Your task to perform on an android device: turn on sleep mode Image 0: 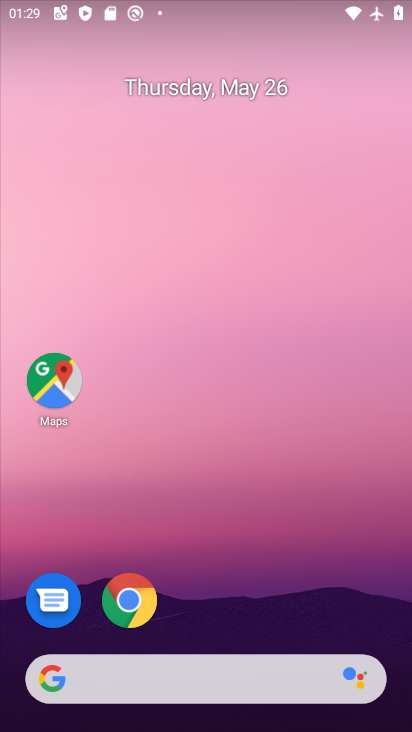
Step 0: drag from (234, 563) to (285, 110)
Your task to perform on an android device: turn on sleep mode Image 1: 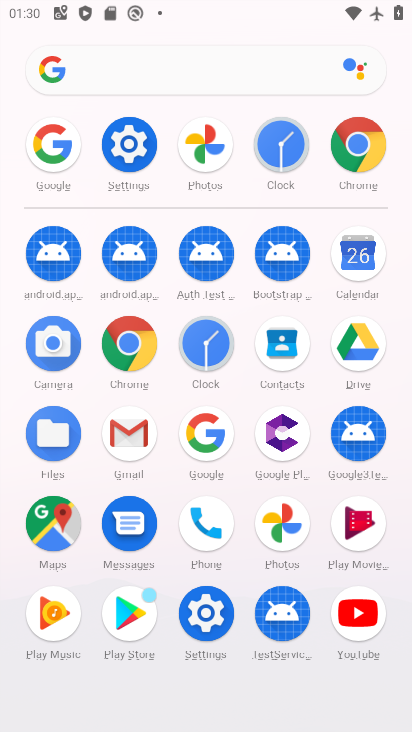
Step 1: click (208, 600)
Your task to perform on an android device: turn on sleep mode Image 2: 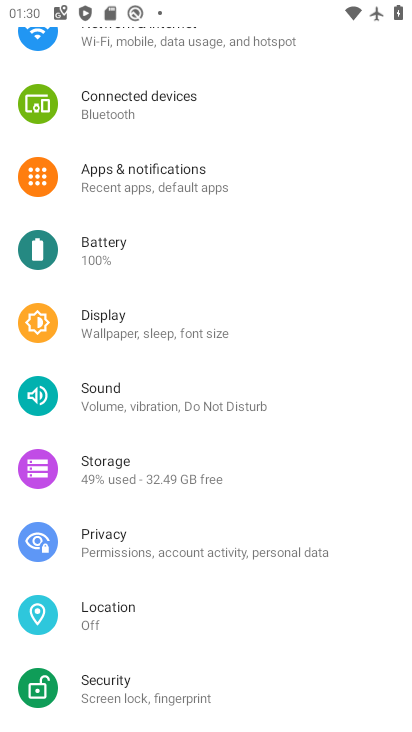
Step 2: click (166, 331)
Your task to perform on an android device: turn on sleep mode Image 3: 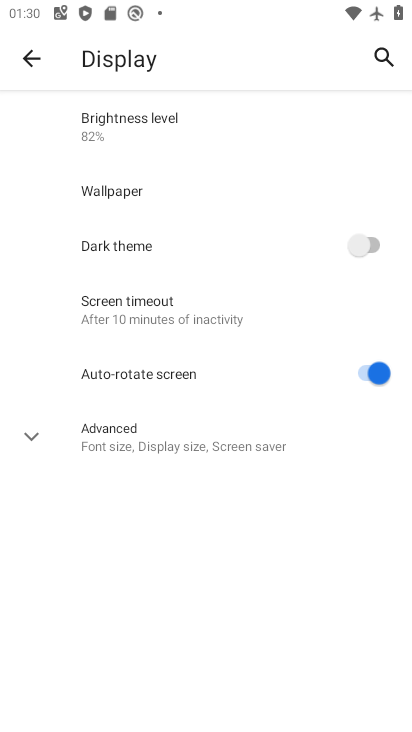
Step 3: click (157, 299)
Your task to perform on an android device: turn on sleep mode Image 4: 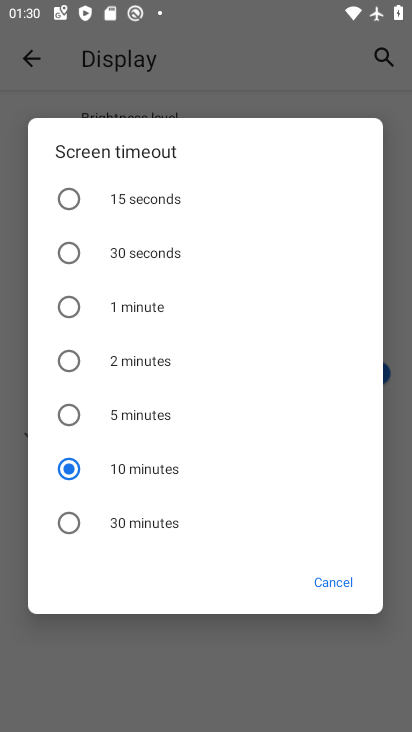
Step 4: task complete